Your task to perform on an android device: Open Android settings Image 0: 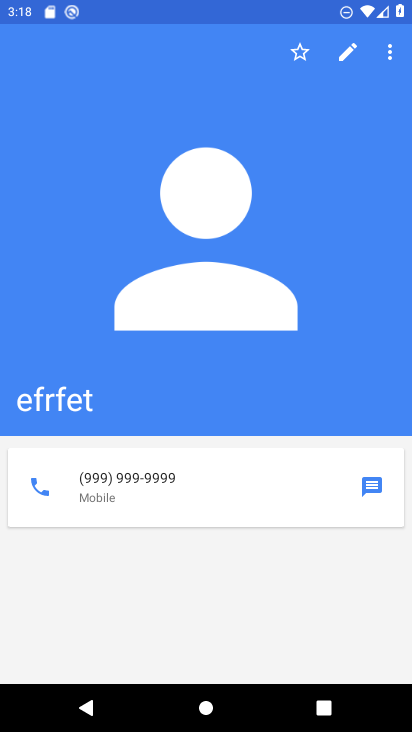
Step 0: press home button
Your task to perform on an android device: Open Android settings Image 1: 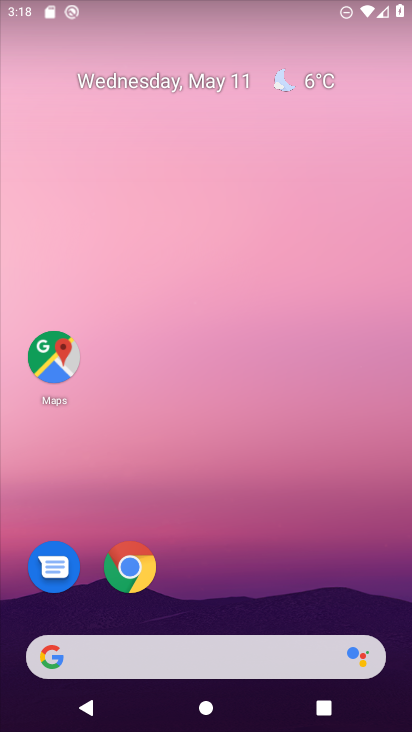
Step 1: drag from (279, 607) to (208, 230)
Your task to perform on an android device: Open Android settings Image 2: 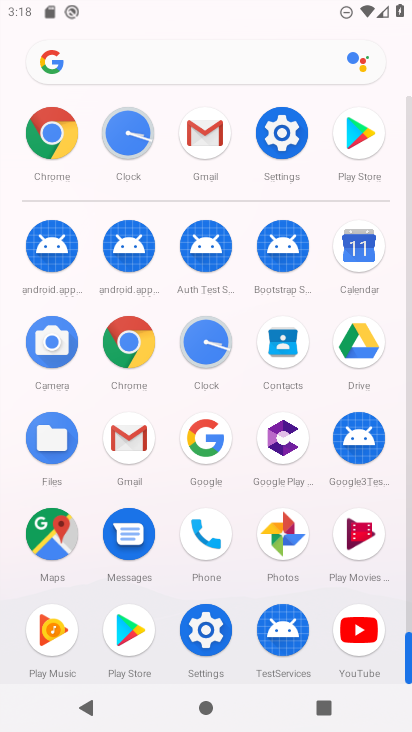
Step 2: click (209, 626)
Your task to perform on an android device: Open Android settings Image 3: 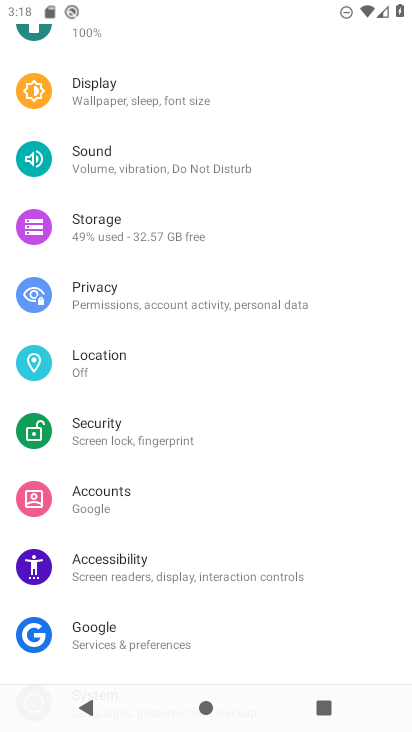
Step 3: click (209, 626)
Your task to perform on an android device: Open Android settings Image 4: 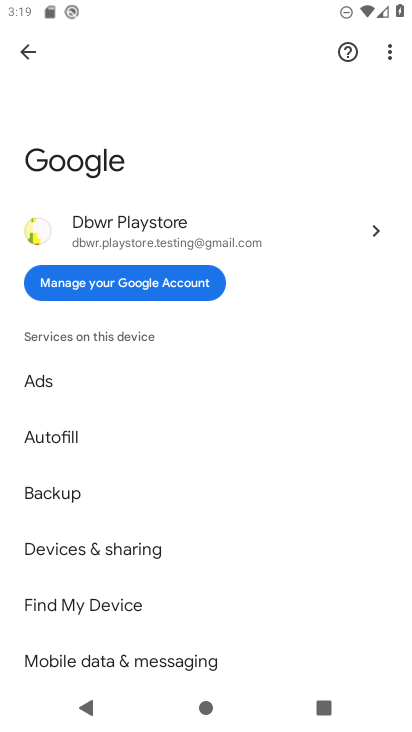
Step 4: task complete